Your task to perform on an android device: turn off location Image 0: 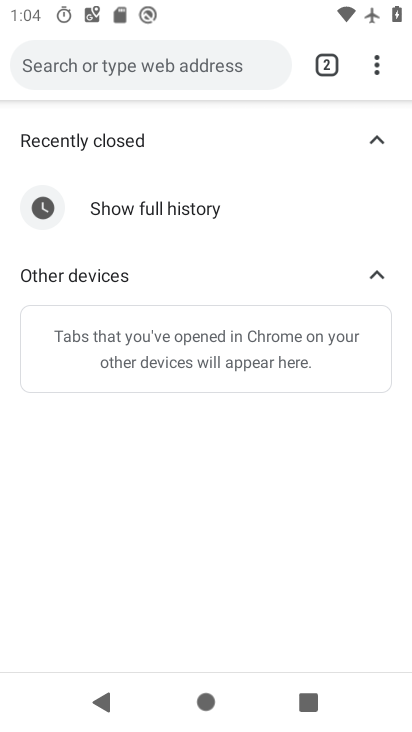
Step 0: press home button
Your task to perform on an android device: turn off location Image 1: 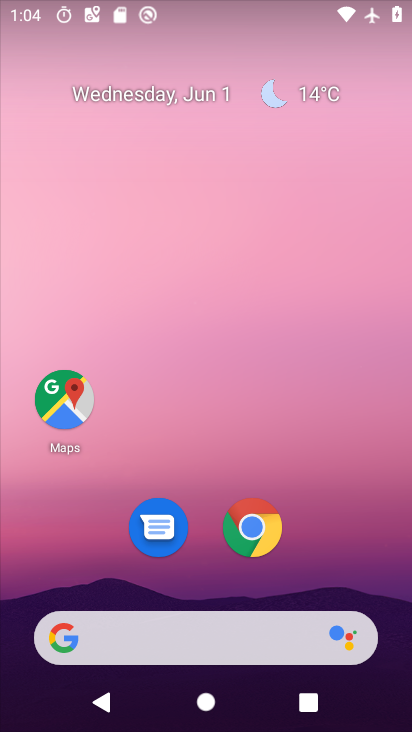
Step 1: drag from (367, 593) to (333, 10)
Your task to perform on an android device: turn off location Image 2: 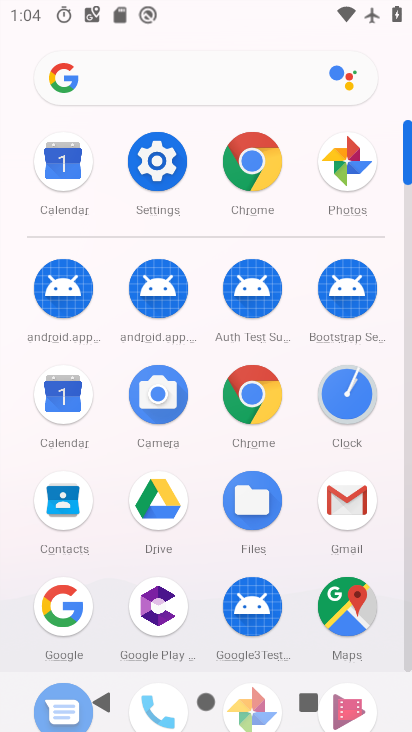
Step 2: click (150, 170)
Your task to perform on an android device: turn off location Image 3: 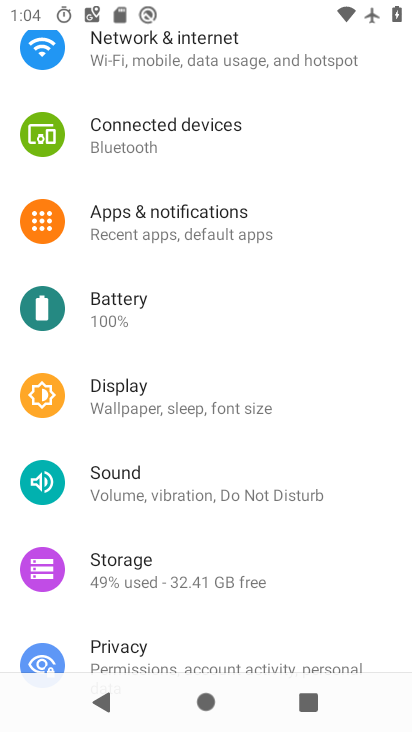
Step 3: drag from (348, 527) to (361, 179)
Your task to perform on an android device: turn off location Image 4: 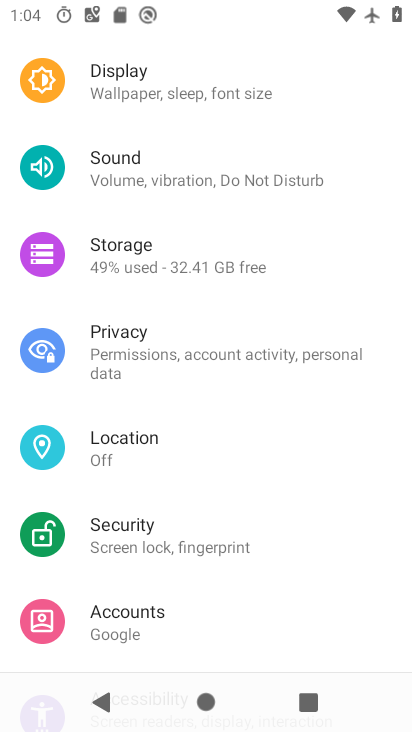
Step 4: click (116, 440)
Your task to perform on an android device: turn off location Image 5: 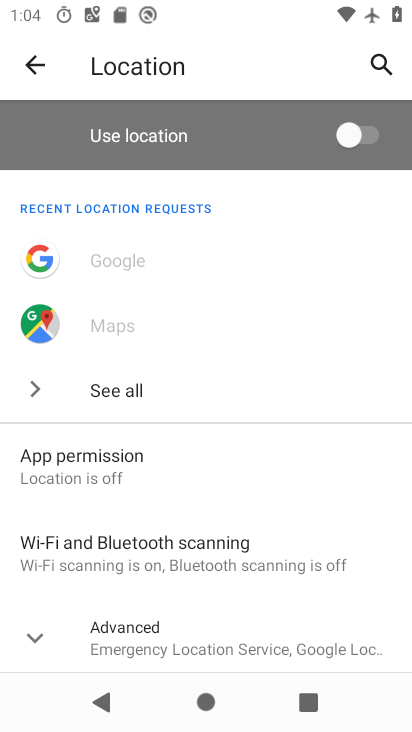
Step 5: task complete